Your task to perform on an android device: Open Maps and search for coffee Image 0: 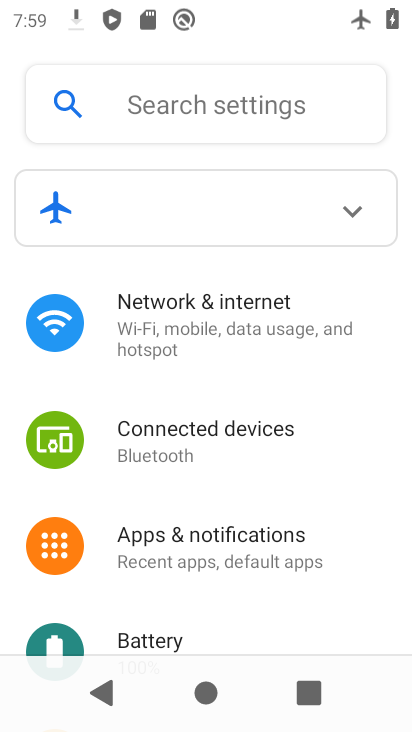
Step 0: press home button
Your task to perform on an android device: Open Maps and search for coffee Image 1: 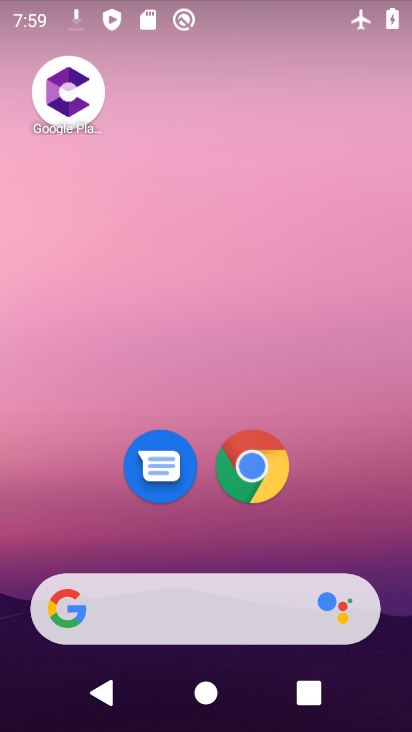
Step 1: drag from (374, 549) to (330, 83)
Your task to perform on an android device: Open Maps and search for coffee Image 2: 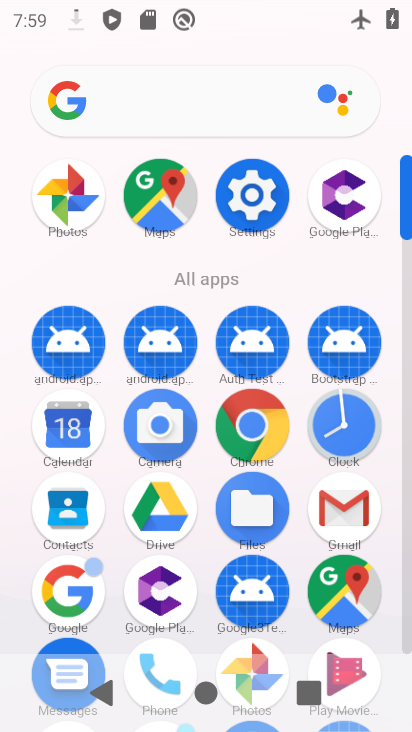
Step 2: click (407, 639)
Your task to perform on an android device: Open Maps and search for coffee Image 3: 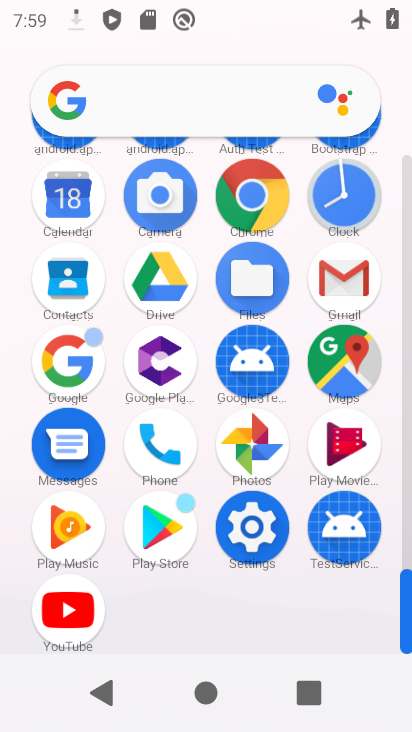
Step 3: click (342, 359)
Your task to perform on an android device: Open Maps and search for coffee Image 4: 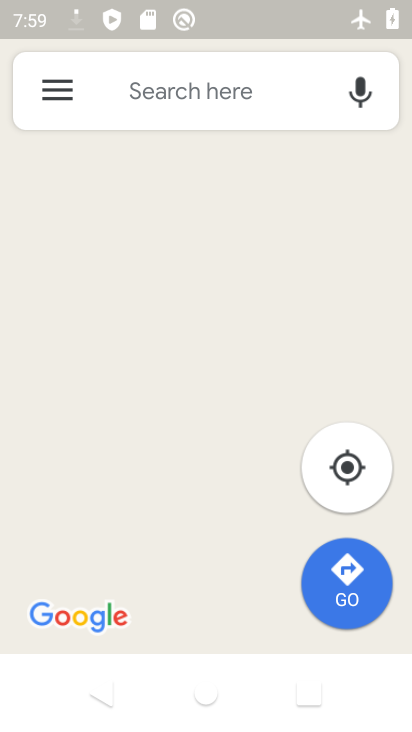
Step 4: click (142, 86)
Your task to perform on an android device: Open Maps and search for coffee Image 5: 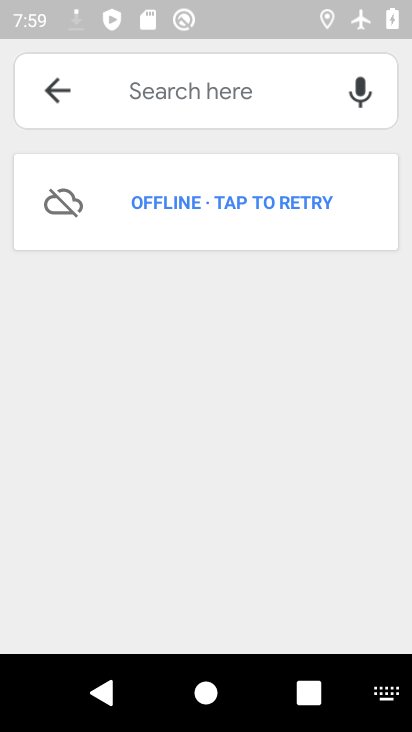
Step 5: type "coffee"
Your task to perform on an android device: Open Maps and search for coffee Image 6: 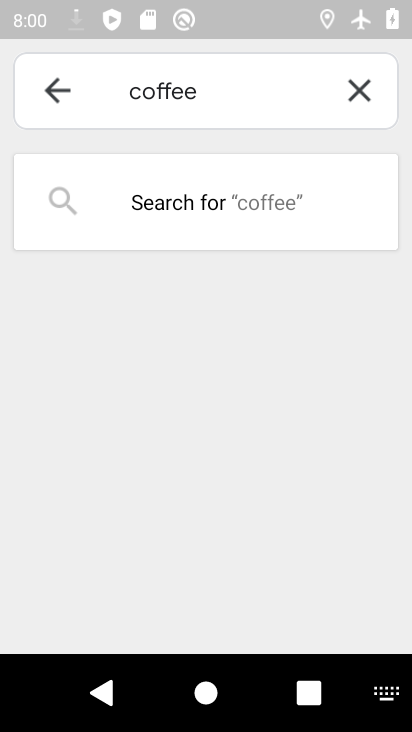
Step 6: task complete